Your task to perform on an android device: What's the weather today? Image 0: 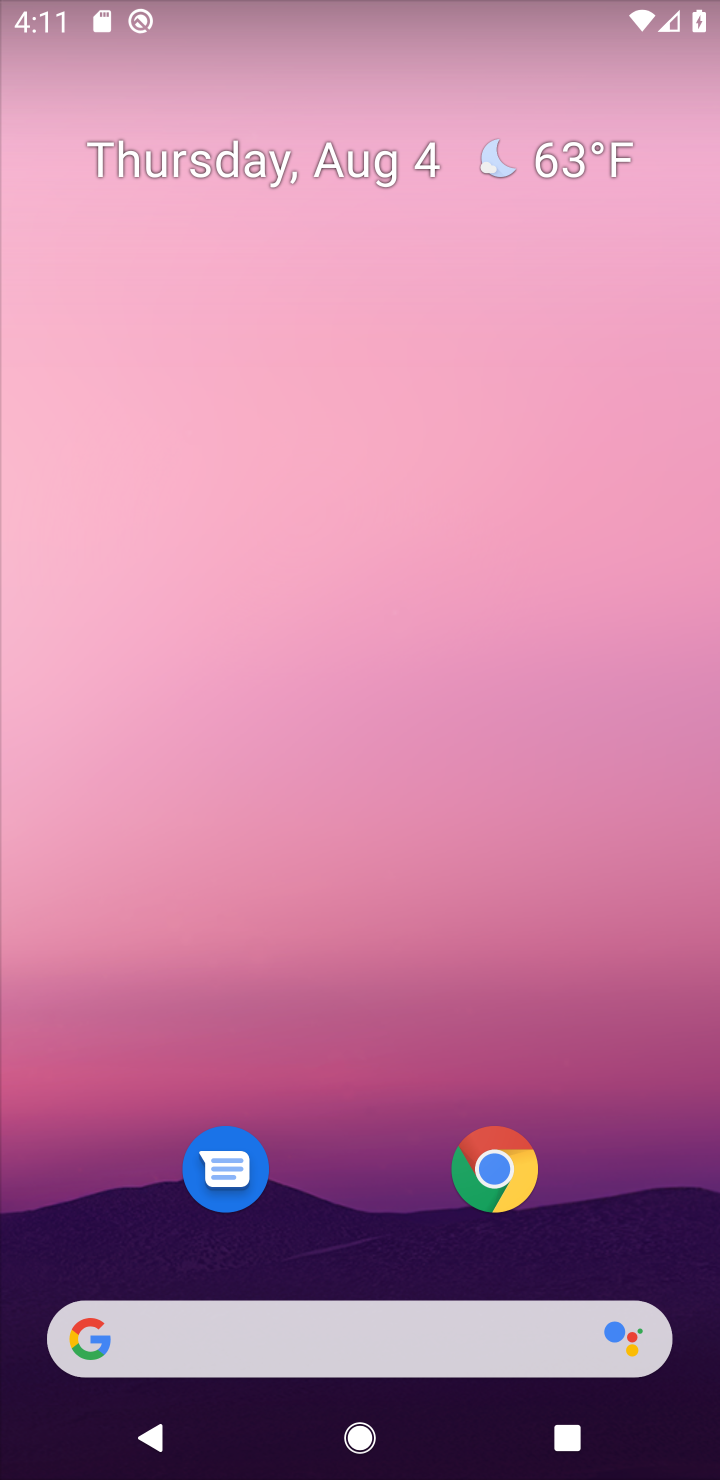
Step 0: click (344, 1337)
Your task to perform on an android device: What's the weather today? Image 1: 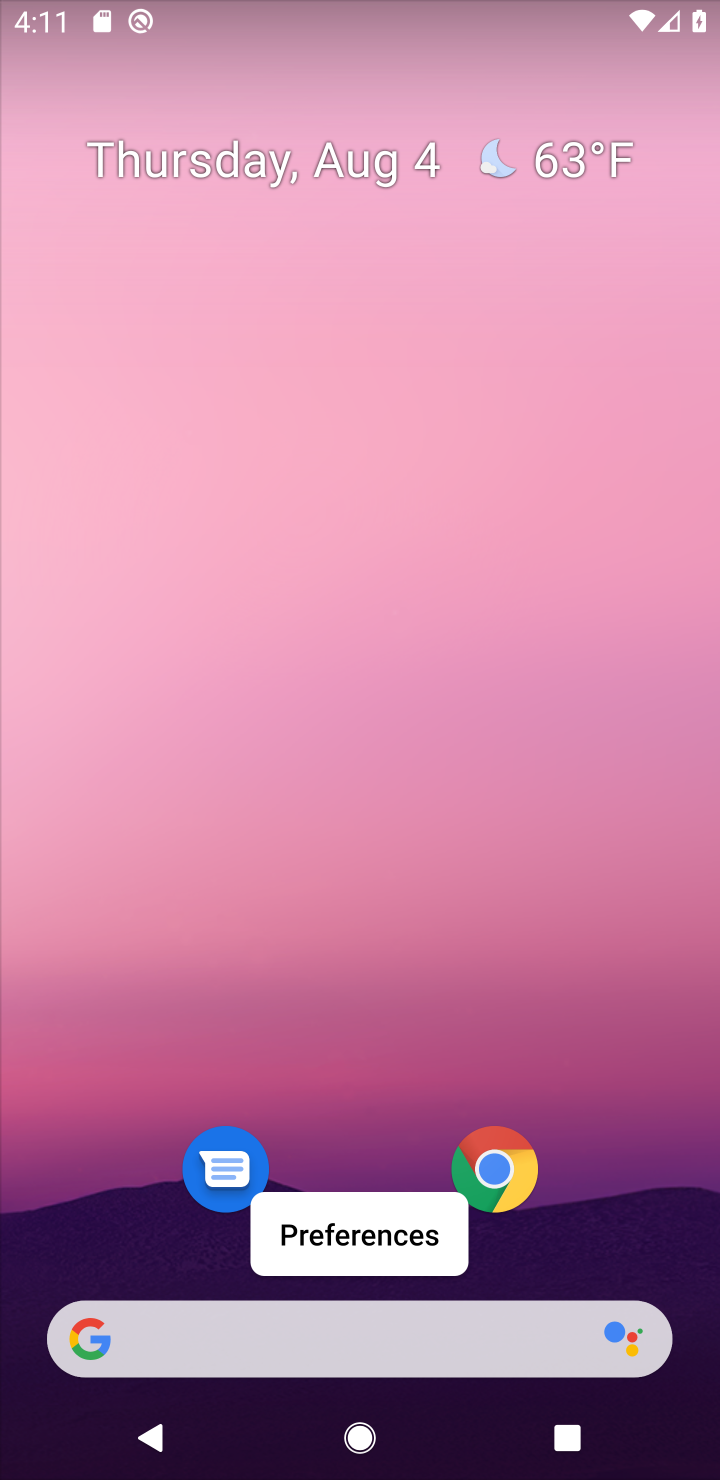
Step 1: click (346, 1320)
Your task to perform on an android device: What's the weather today? Image 2: 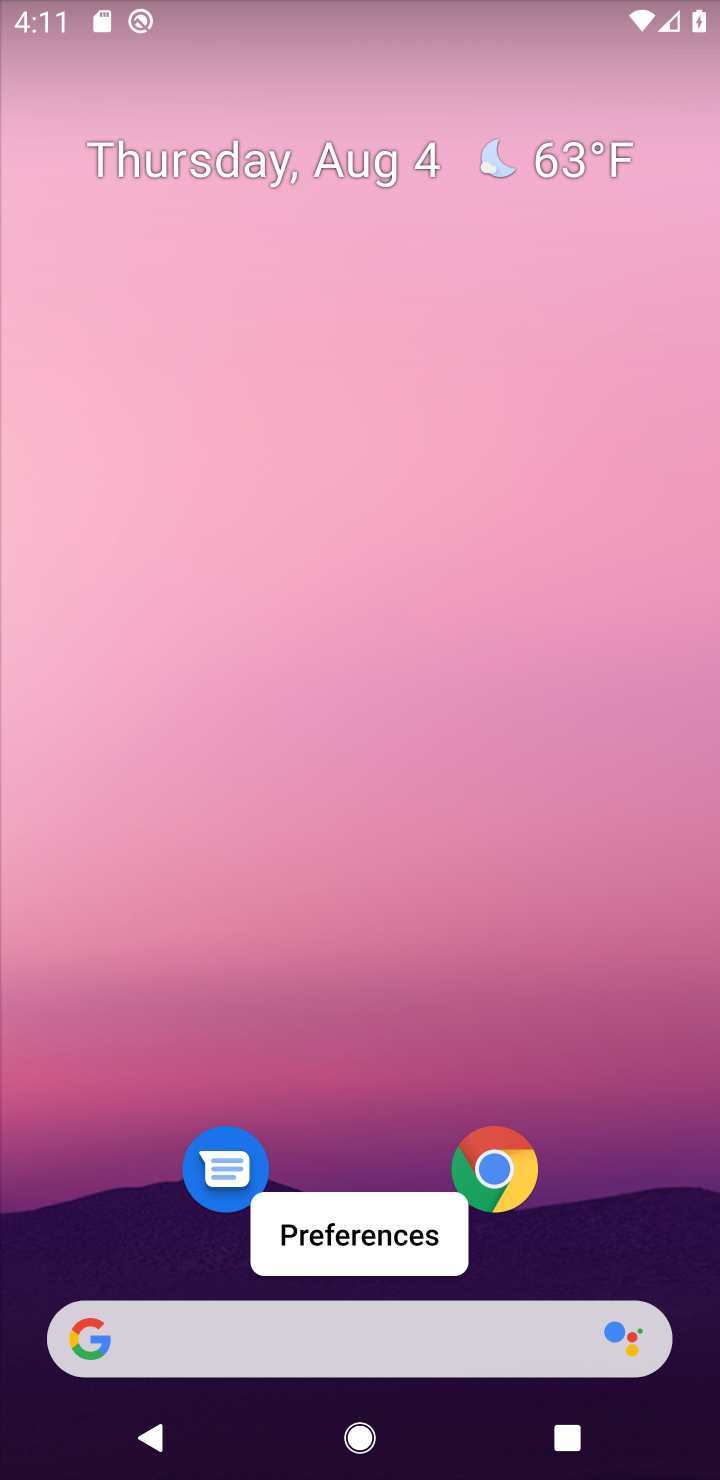
Step 2: click (317, 1332)
Your task to perform on an android device: What's the weather today? Image 3: 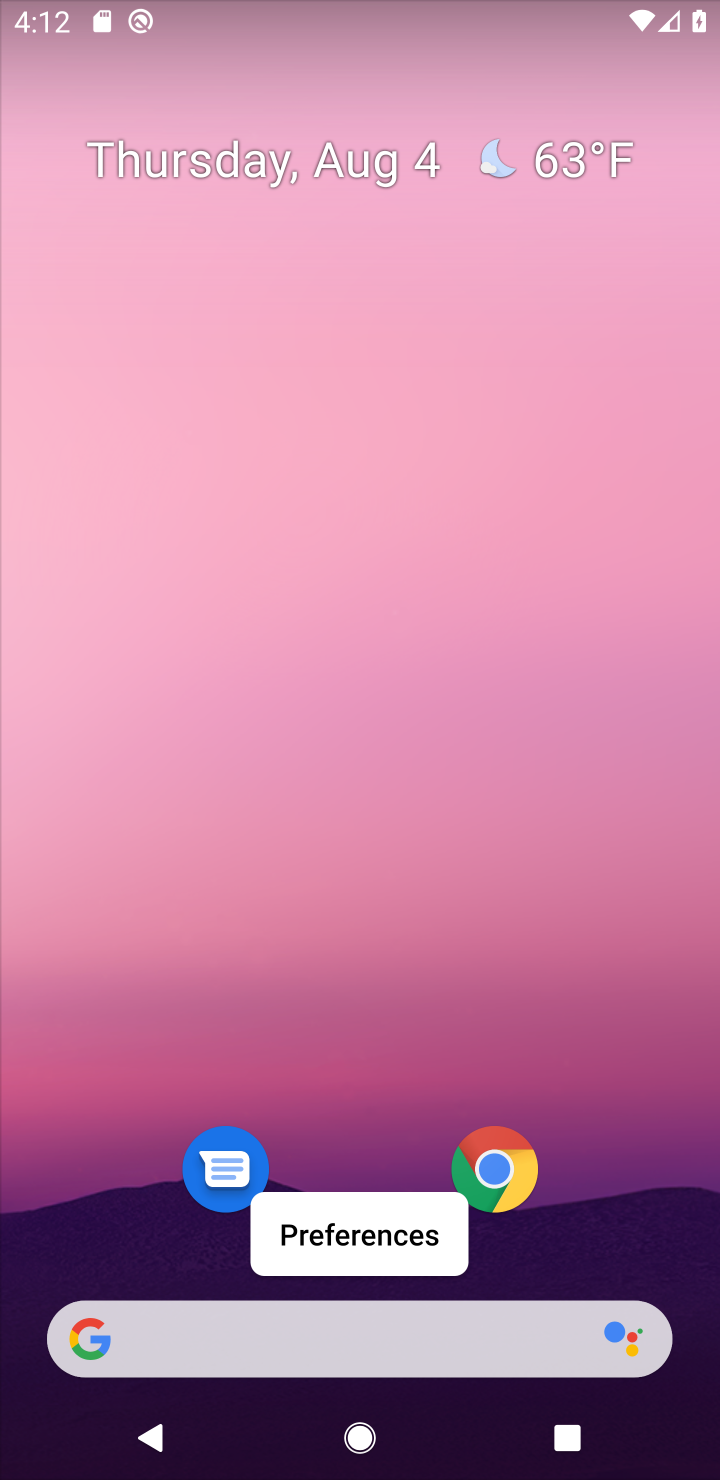
Step 3: click (367, 1338)
Your task to perform on an android device: What's the weather today? Image 4: 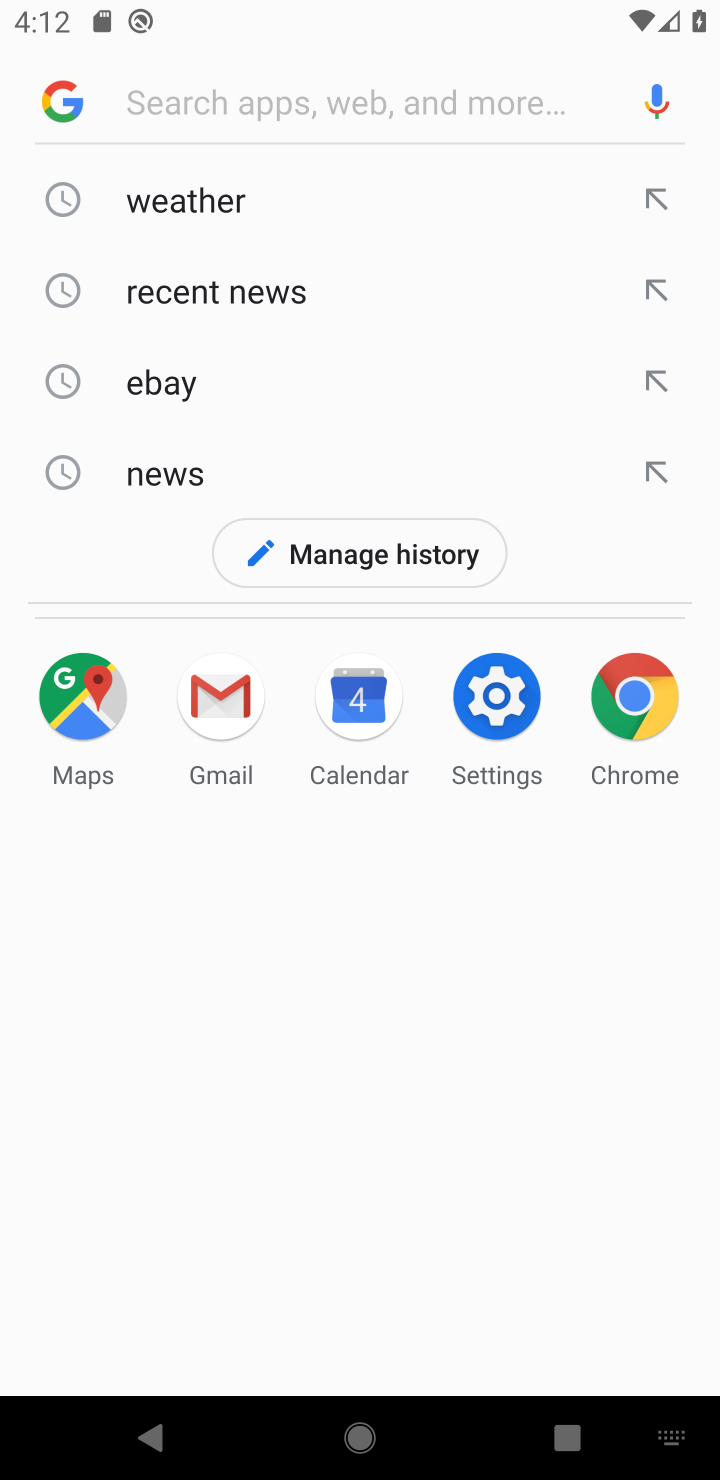
Step 4: type "weather"
Your task to perform on an android device: What's the weather today? Image 5: 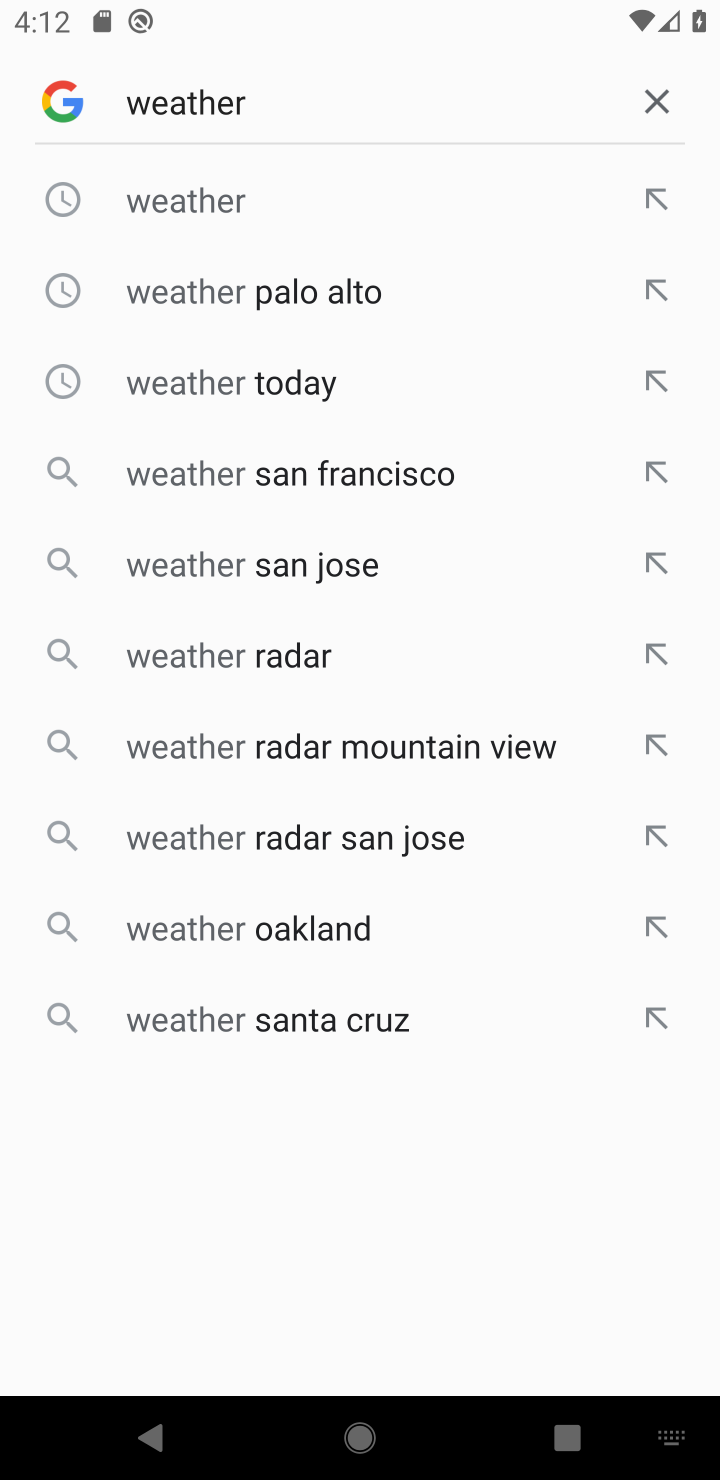
Step 5: click (228, 211)
Your task to perform on an android device: What's the weather today? Image 6: 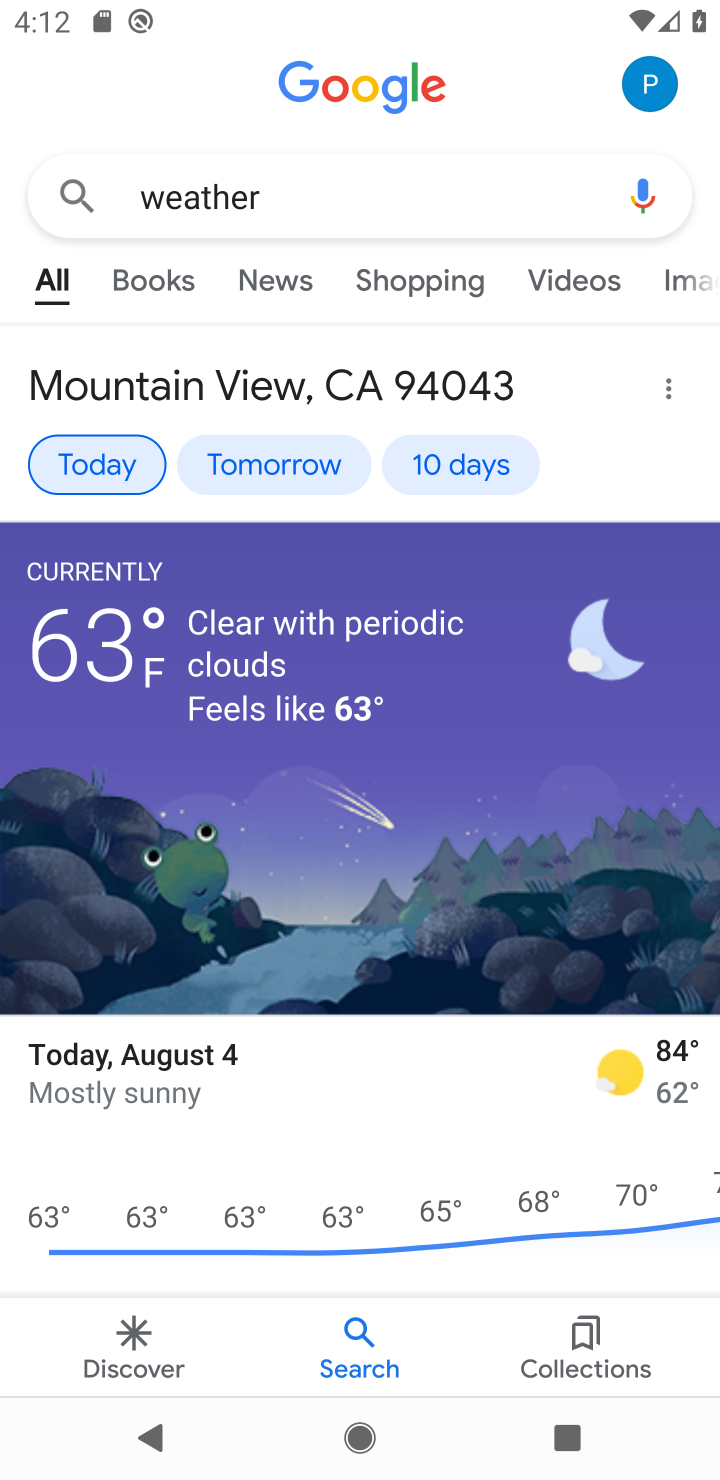
Step 6: task complete